Your task to perform on an android device: Show me productivity apps on the Play Store Image 0: 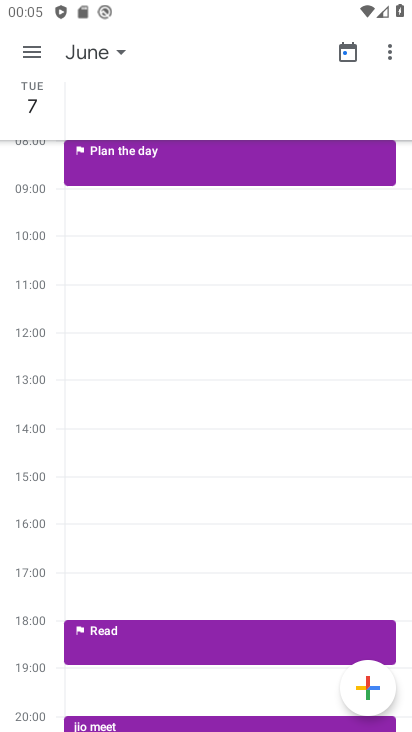
Step 0: press home button
Your task to perform on an android device: Show me productivity apps on the Play Store Image 1: 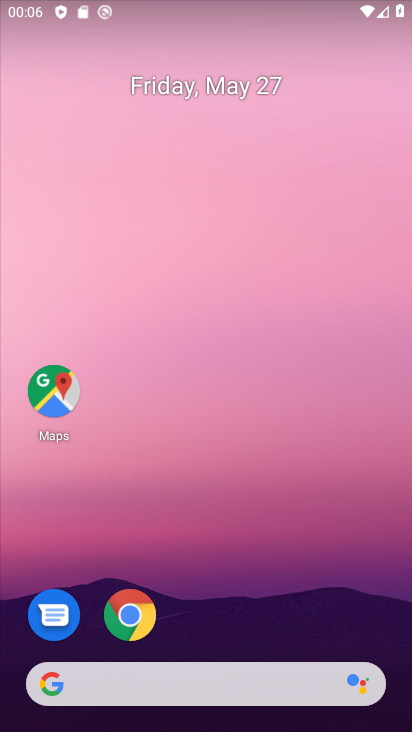
Step 1: drag from (384, 630) to (363, 247)
Your task to perform on an android device: Show me productivity apps on the Play Store Image 2: 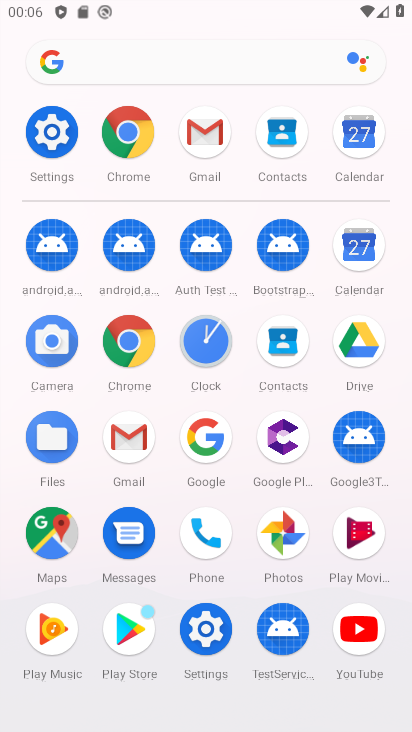
Step 2: click (143, 624)
Your task to perform on an android device: Show me productivity apps on the Play Store Image 3: 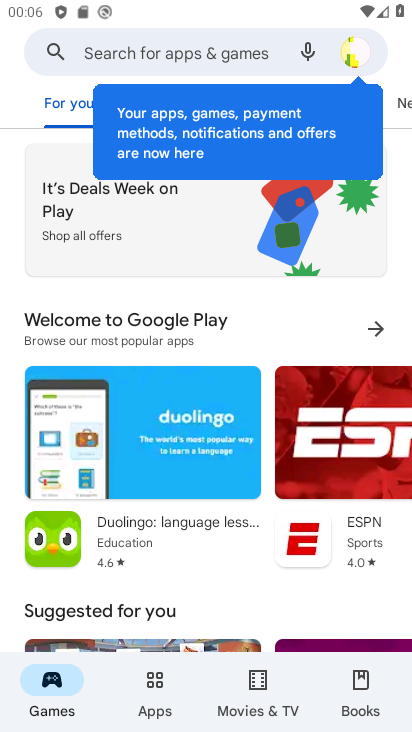
Step 3: click (155, 683)
Your task to perform on an android device: Show me productivity apps on the Play Store Image 4: 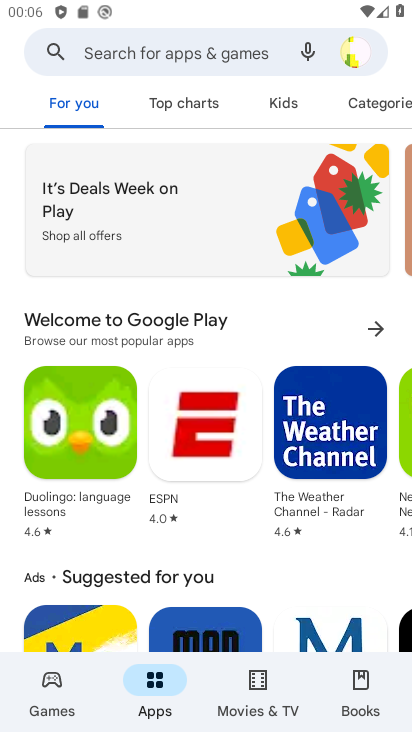
Step 4: task complete